Your task to perform on an android device: Go to accessibility settings Image 0: 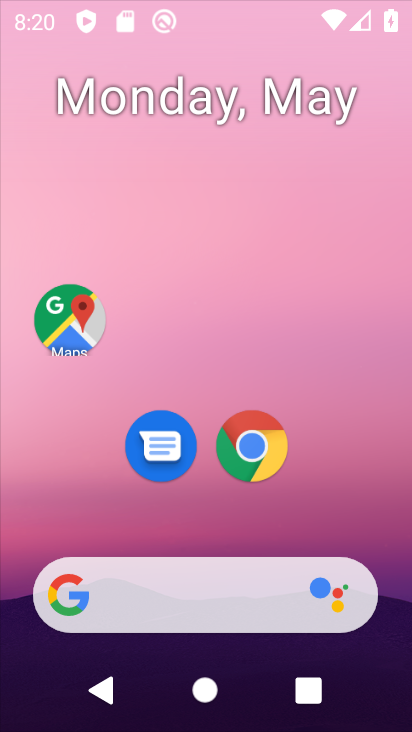
Step 0: press home button
Your task to perform on an android device: Go to accessibility settings Image 1: 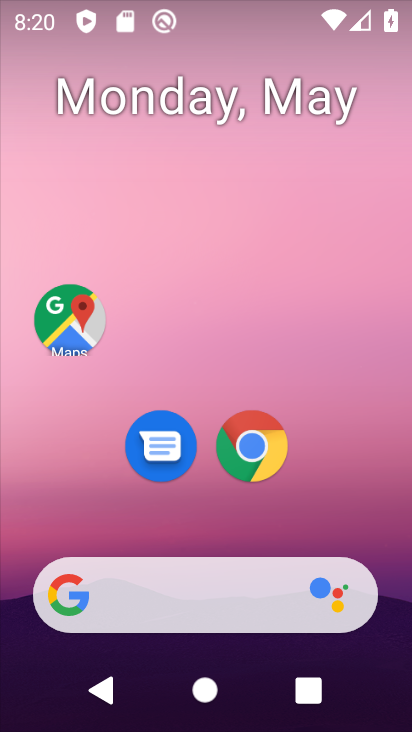
Step 1: drag from (203, 527) to (247, 84)
Your task to perform on an android device: Go to accessibility settings Image 2: 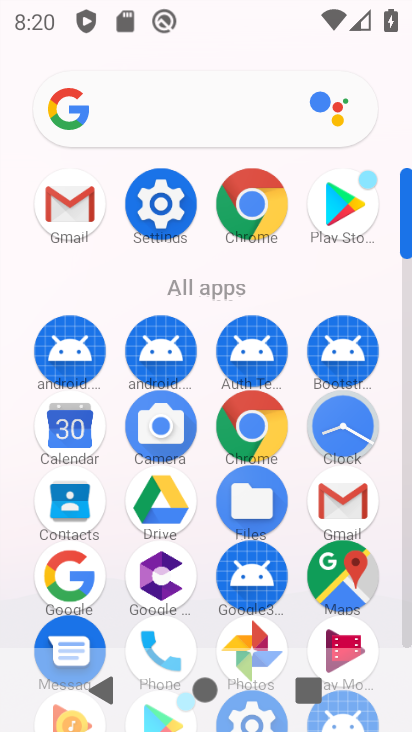
Step 2: click (158, 197)
Your task to perform on an android device: Go to accessibility settings Image 3: 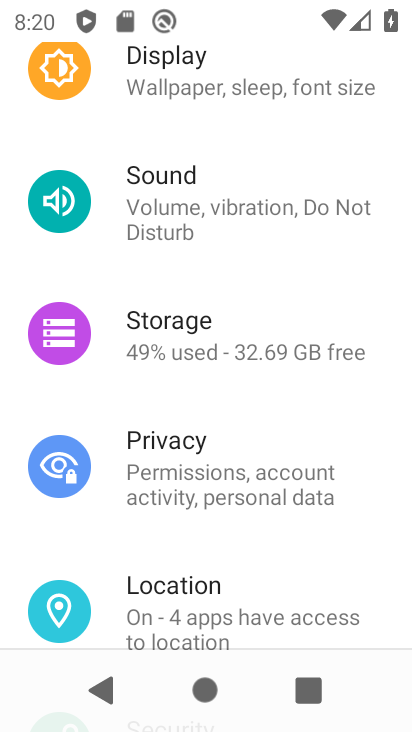
Step 3: drag from (230, 603) to (249, 95)
Your task to perform on an android device: Go to accessibility settings Image 4: 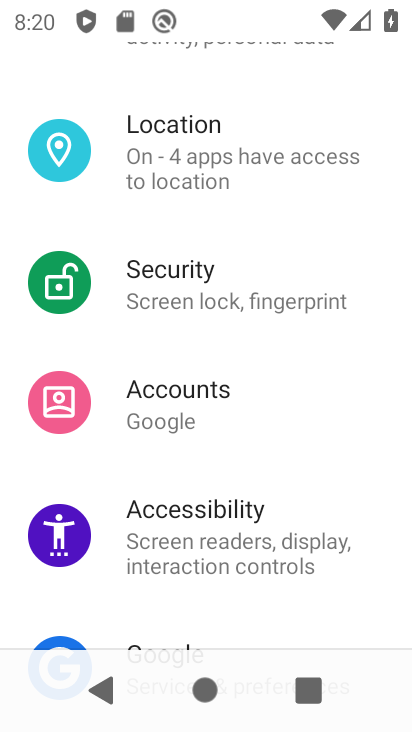
Step 4: click (110, 525)
Your task to perform on an android device: Go to accessibility settings Image 5: 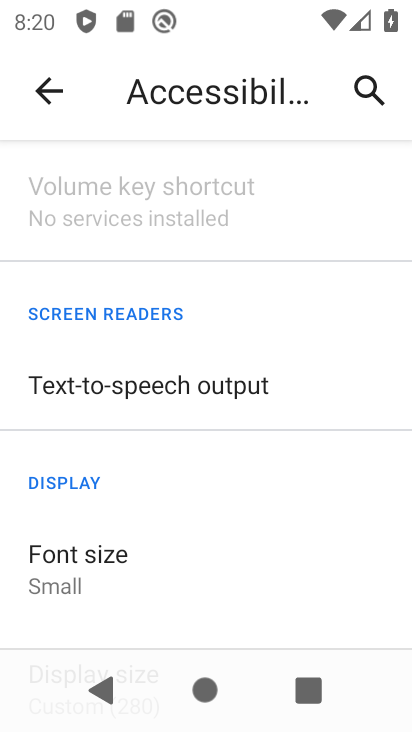
Step 5: task complete